Your task to perform on an android device: turn off javascript in the chrome app Image 0: 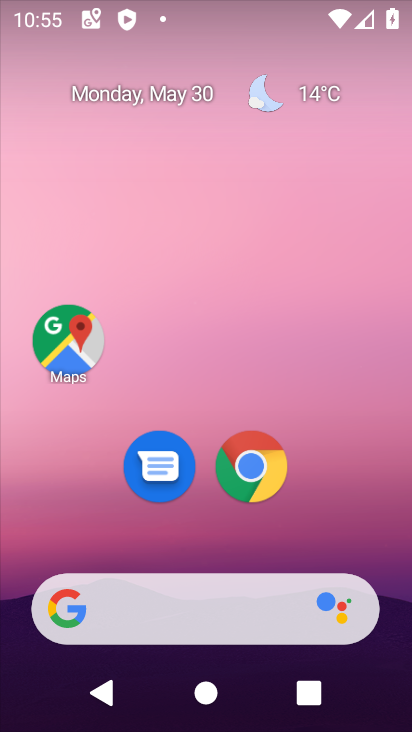
Step 0: click (261, 459)
Your task to perform on an android device: turn off javascript in the chrome app Image 1: 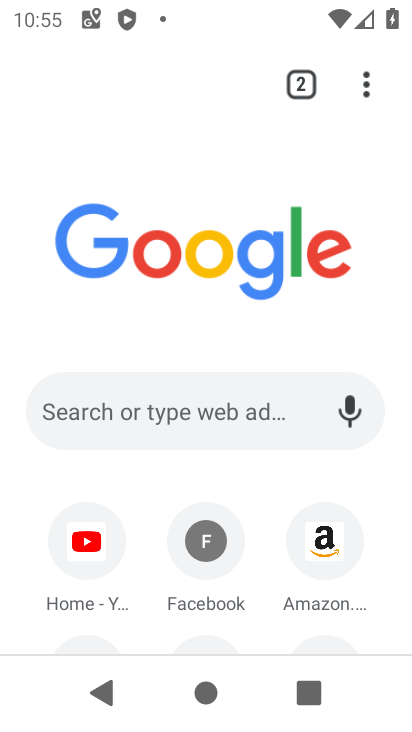
Step 1: click (366, 72)
Your task to perform on an android device: turn off javascript in the chrome app Image 2: 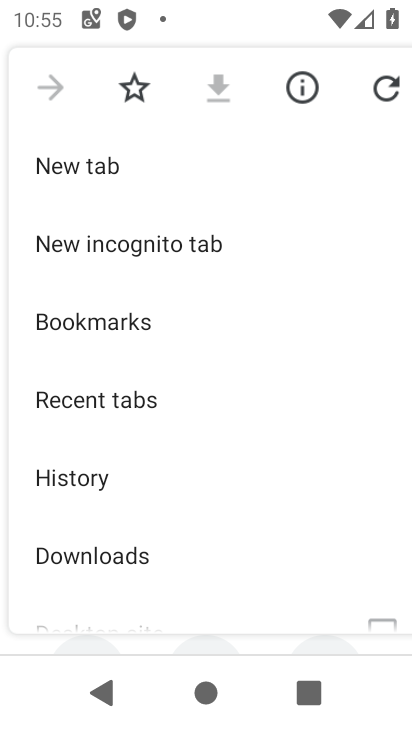
Step 2: drag from (178, 538) to (186, 146)
Your task to perform on an android device: turn off javascript in the chrome app Image 3: 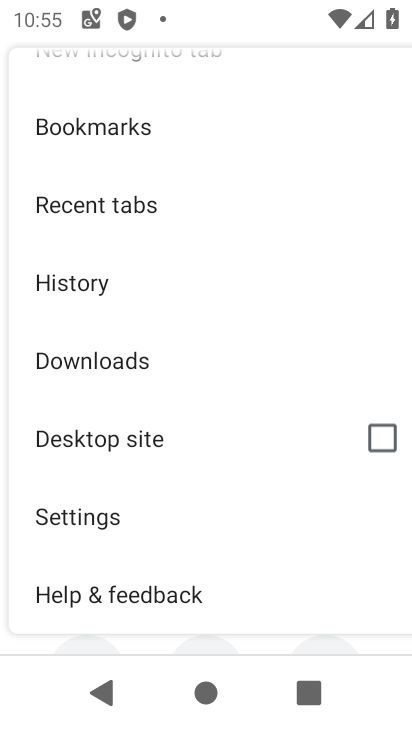
Step 3: click (87, 513)
Your task to perform on an android device: turn off javascript in the chrome app Image 4: 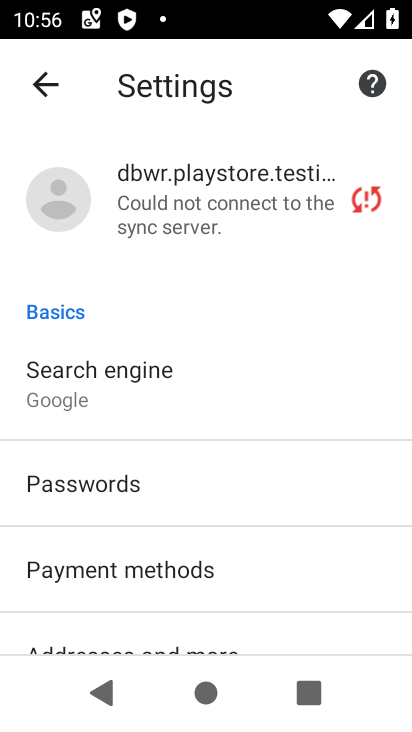
Step 4: drag from (152, 629) to (90, 60)
Your task to perform on an android device: turn off javascript in the chrome app Image 5: 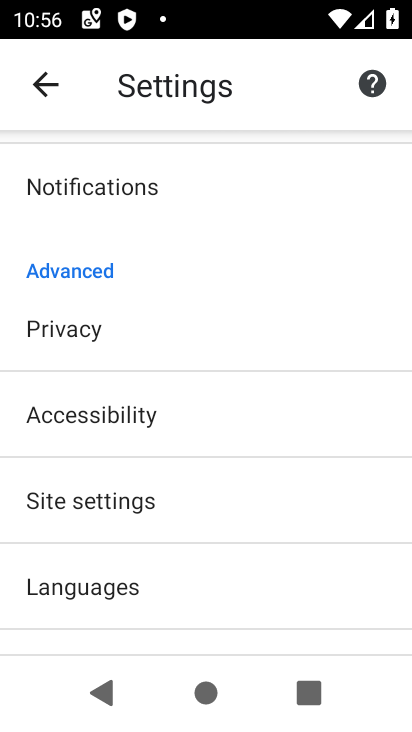
Step 5: click (113, 512)
Your task to perform on an android device: turn off javascript in the chrome app Image 6: 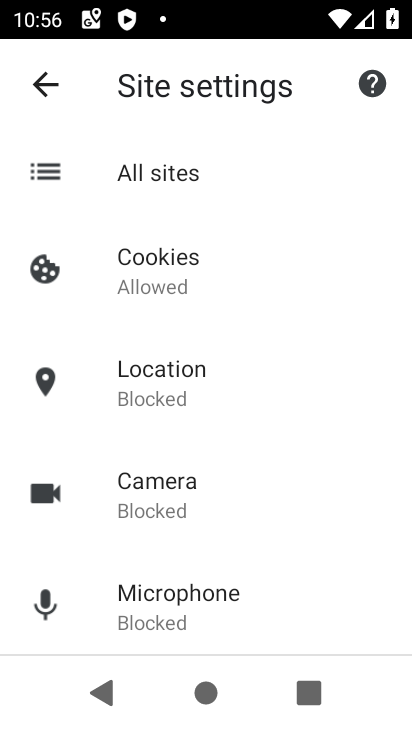
Step 6: drag from (185, 590) to (126, 30)
Your task to perform on an android device: turn off javascript in the chrome app Image 7: 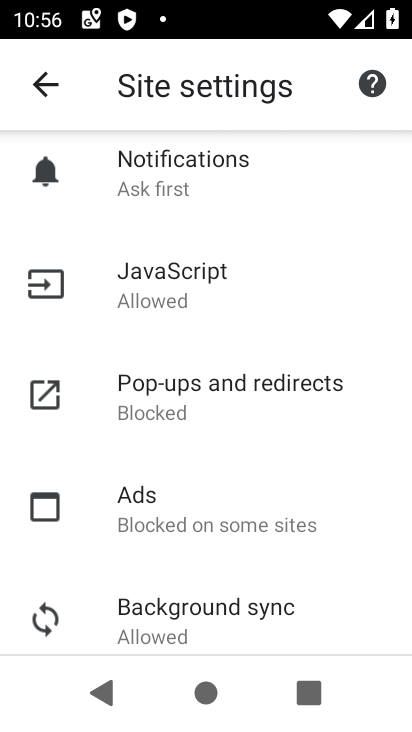
Step 7: click (139, 304)
Your task to perform on an android device: turn off javascript in the chrome app Image 8: 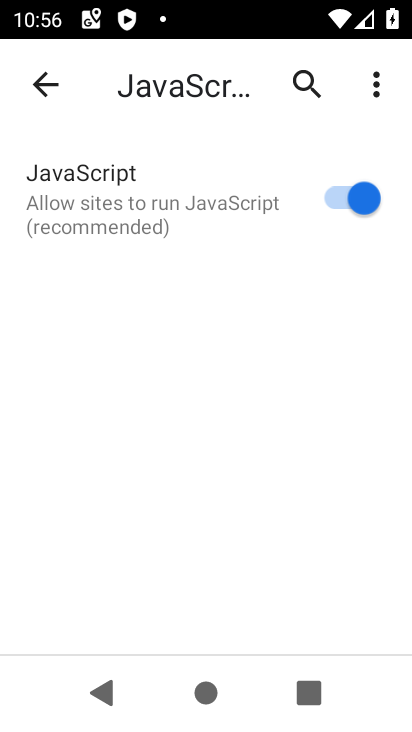
Step 8: click (366, 185)
Your task to perform on an android device: turn off javascript in the chrome app Image 9: 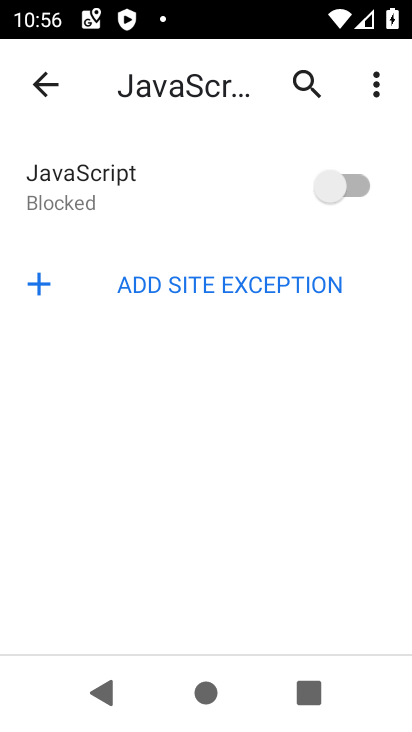
Step 9: task complete